Your task to perform on an android device: check android version Image 0: 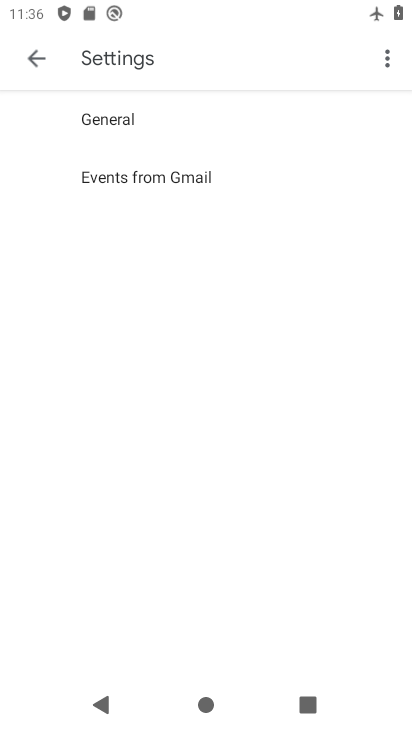
Step 0: press home button
Your task to perform on an android device: check android version Image 1: 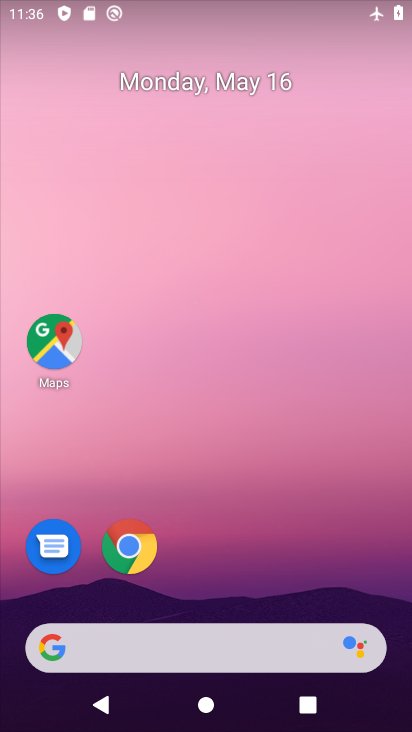
Step 1: drag from (399, 636) to (328, 125)
Your task to perform on an android device: check android version Image 2: 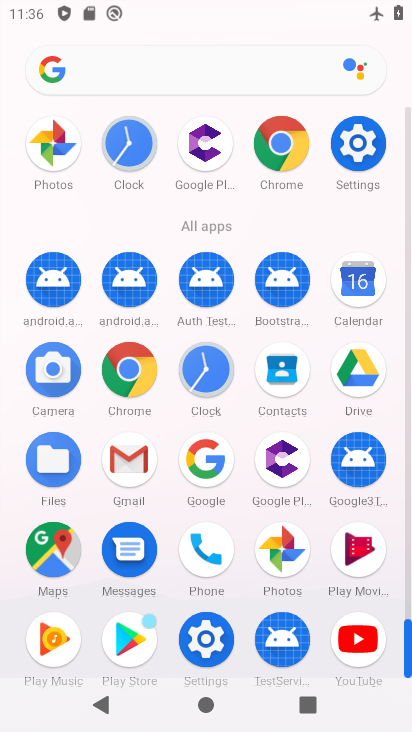
Step 2: click (207, 638)
Your task to perform on an android device: check android version Image 3: 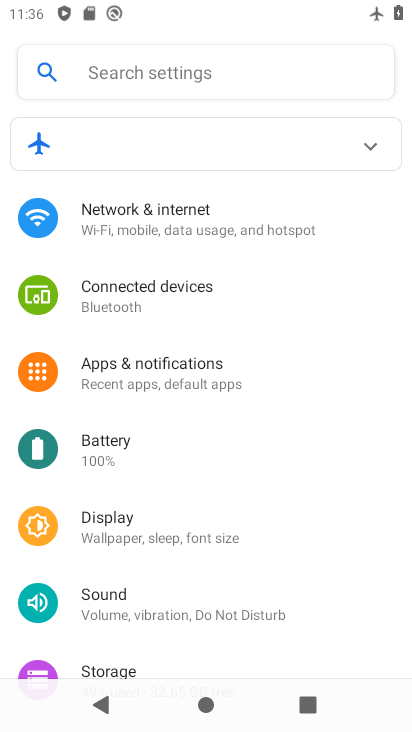
Step 3: drag from (365, 650) to (350, 219)
Your task to perform on an android device: check android version Image 4: 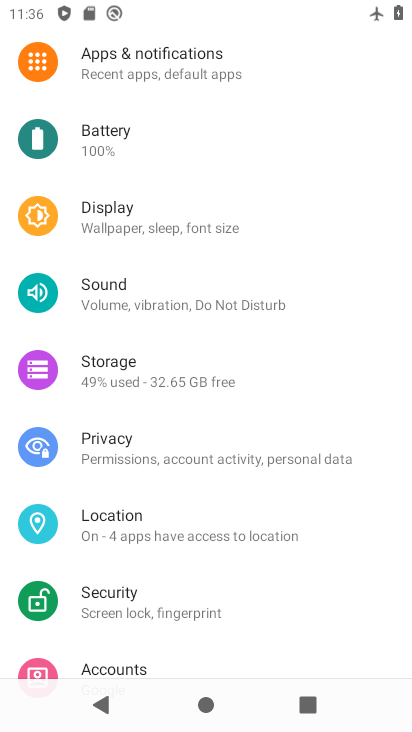
Step 4: drag from (337, 612) to (327, 175)
Your task to perform on an android device: check android version Image 5: 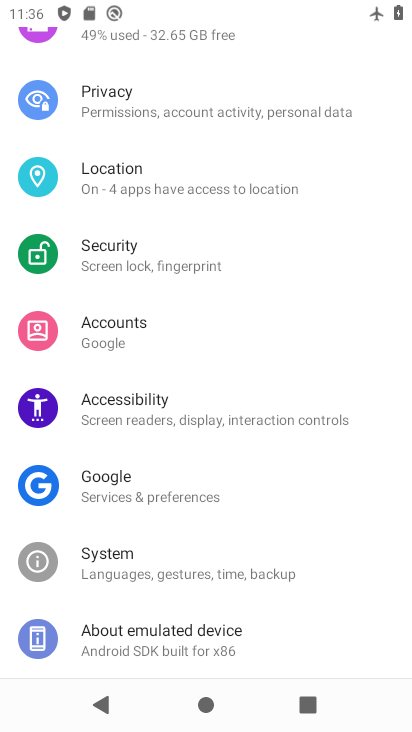
Step 5: click (106, 639)
Your task to perform on an android device: check android version Image 6: 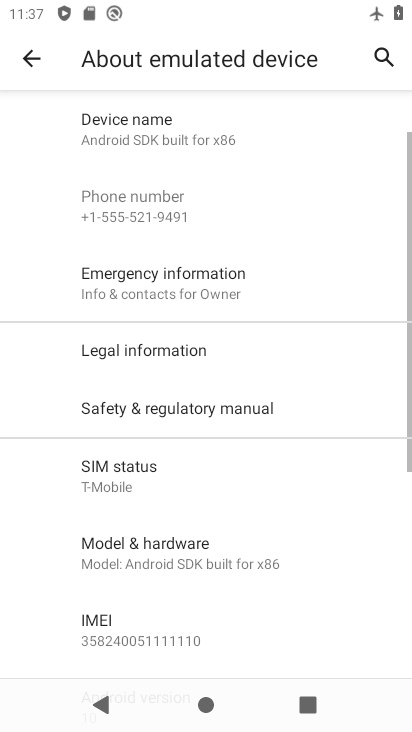
Step 6: click (302, 263)
Your task to perform on an android device: check android version Image 7: 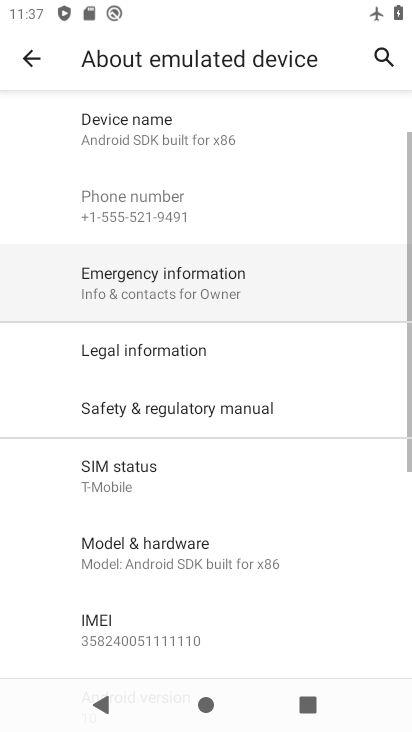
Step 7: drag from (317, 380) to (308, 51)
Your task to perform on an android device: check android version Image 8: 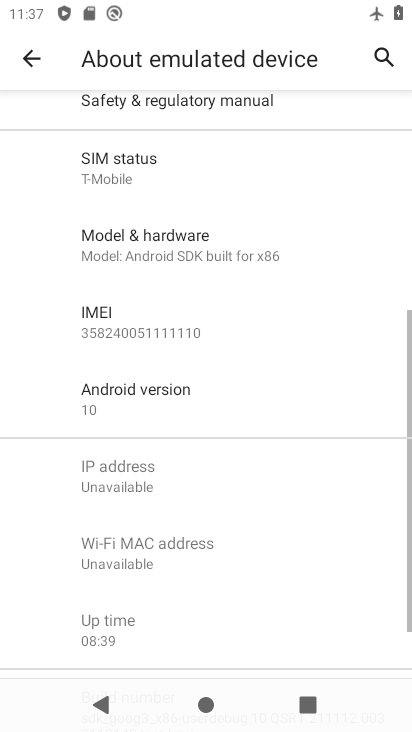
Step 8: drag from (300, 614) to (287, 336)
Your task to perform on an android device: check android version Image 9: 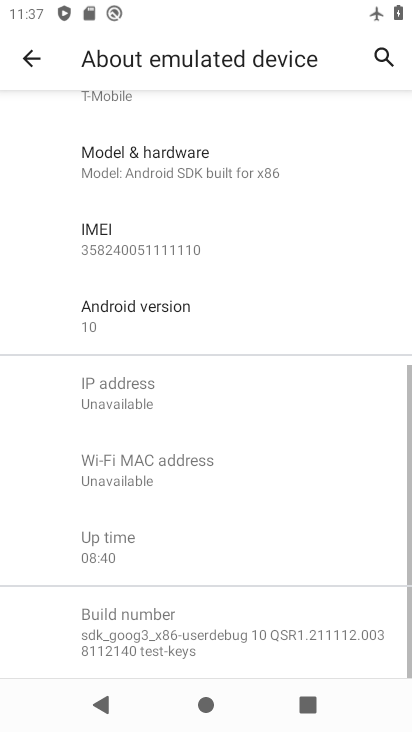
Step 9: click (134, 314)
Your task to perform on an android device: check android version Image 10: 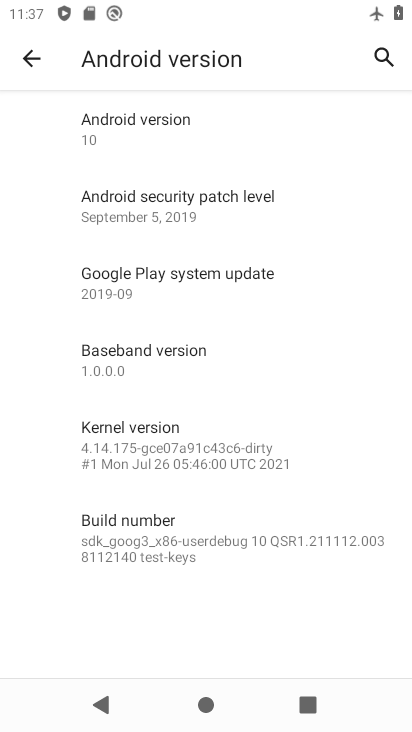
Step 10: task complete